Your task to perform on an android device: Open Youtube and go to "Your channel" Image 0: 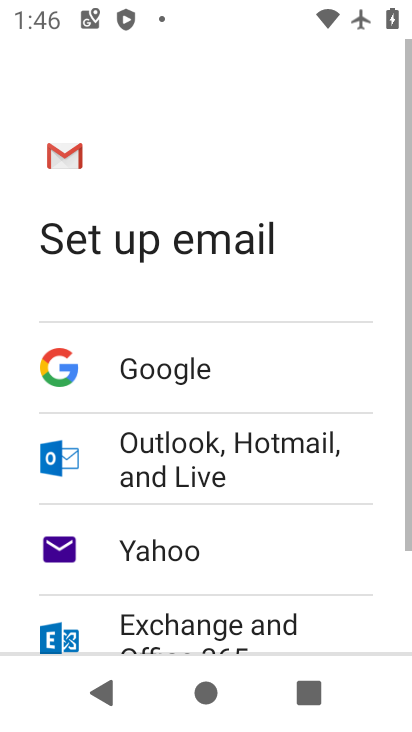
Step 0: press home button
Your task to perform on an android device: Open Youtube and go to "Your channel" Image 1: 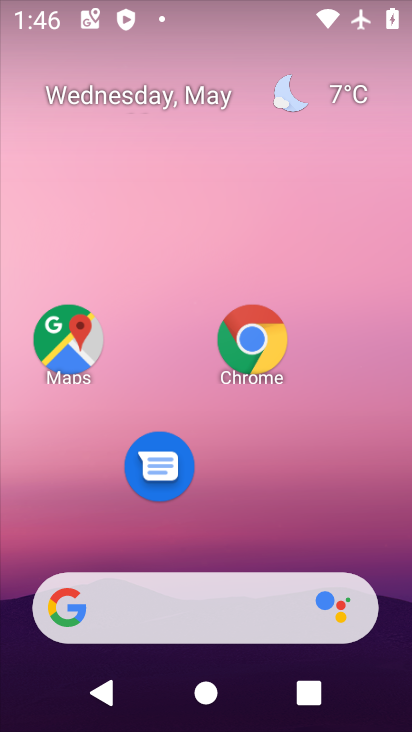
Step 1: drag from (175, 624) to (294, 42)
Your task to perform on an android device: Open Youtube and go to "Your channel" Image 2: 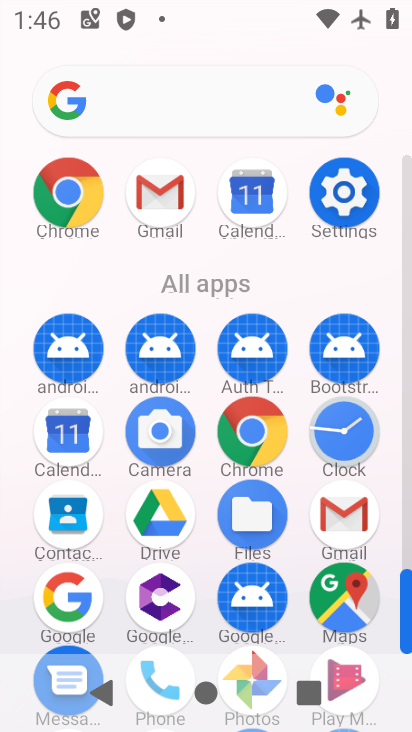
Step 2: drag from (208, 625) to (346, 194)
Your task to perform on an android device: Open Youtube and go to "Your channel" Image 3: 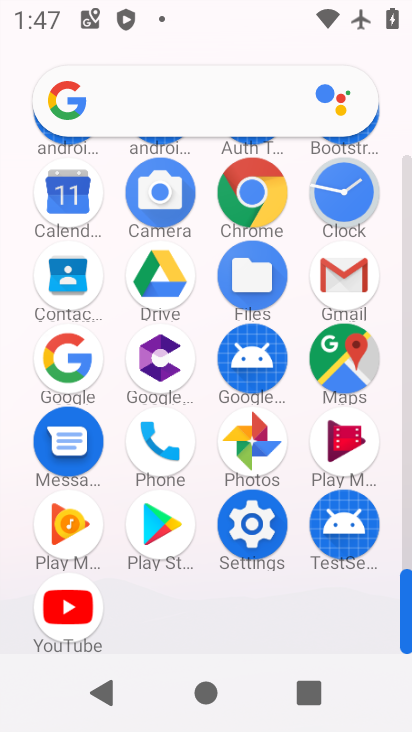
Step 3: click (73, 615)
Your task to perform on an android device: Open Youtube and go to "Your channel" Image 4: 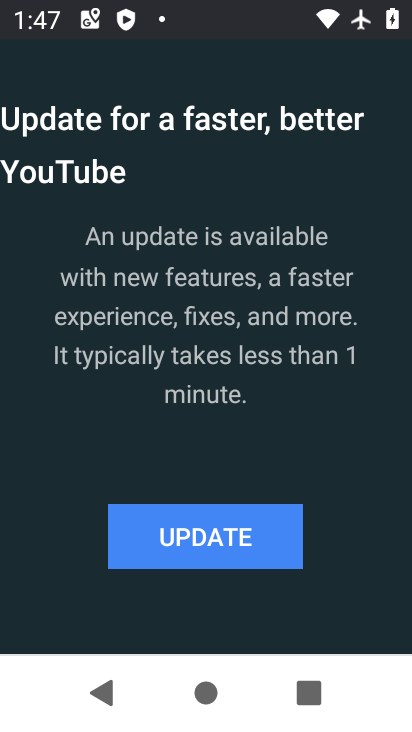
Step 4: click (194, 549)
Your task to perform on an android device: Open Youtube and go to "Your channel" Image 5: 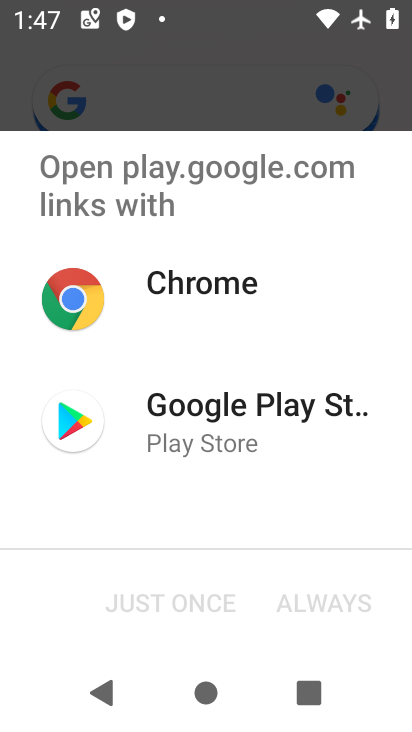
Step 5: click (197, 433)
Your task to perform on an android device: Open Youtube and go to "Your channel" Image 6: 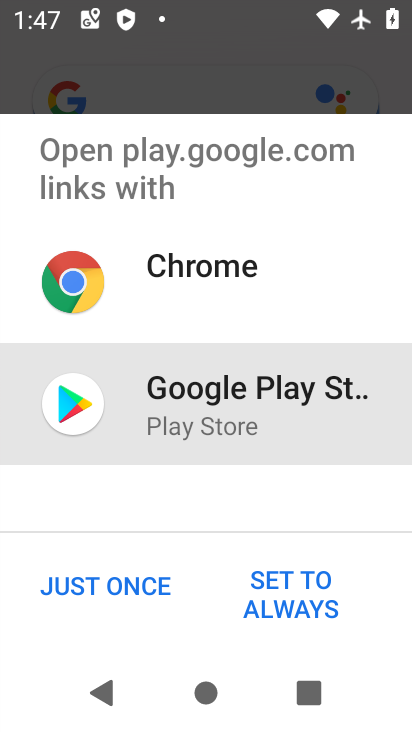
Step 6: click (148, 594)
Your task to perform on an android device: Open Youtube and go to "Your channel" Image 7: 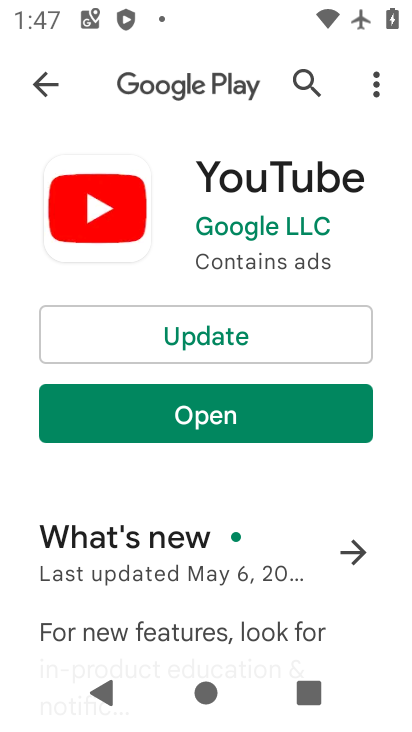
Step 7: click (229, 328)
Your task to perform on an android device: Open Youtube and go to "Your channel" Image 8: 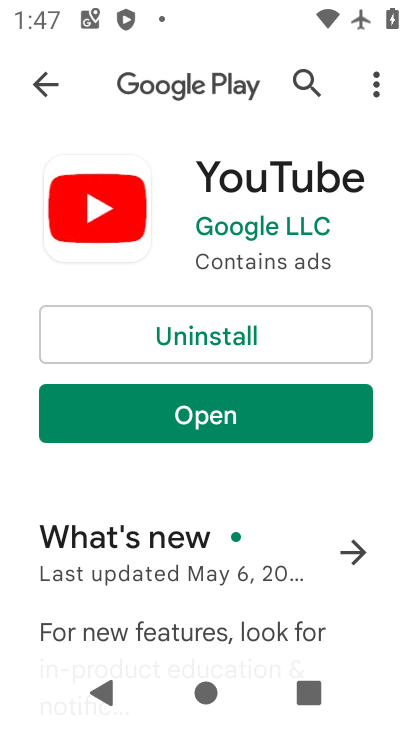
Step 8: click (226, 421)
Your task to perform on an android device: Open Youtube and go to "Your channel" Image 9: 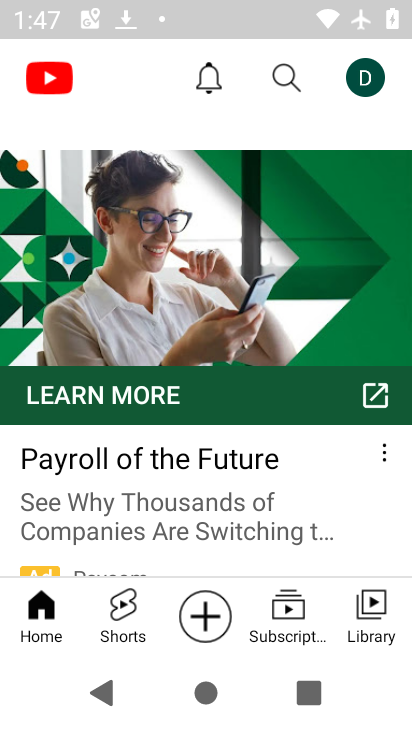
Step 9: click (373, 83)
Your task to perform on an android device: Open Youtube and go to "Your channel" Image 10: 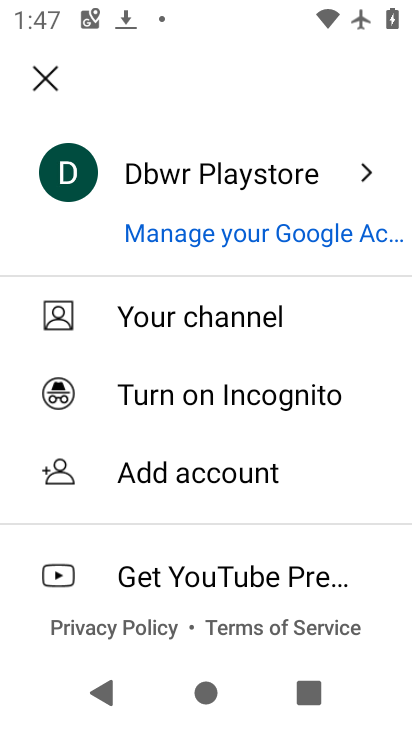
Step 10: click (245, 319)
Your task to perform on an android device: Open Youtube and go to "Your channel" Image 11: 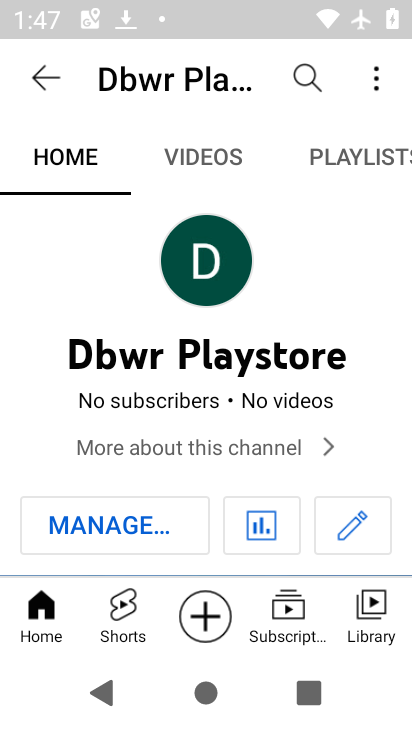
Step 11: task complete